Your task to perform on an android device: Clear the shopping cart on costco. Search for "apple airpods" on costco, select the first entry, and add it to the cart. Image 0: 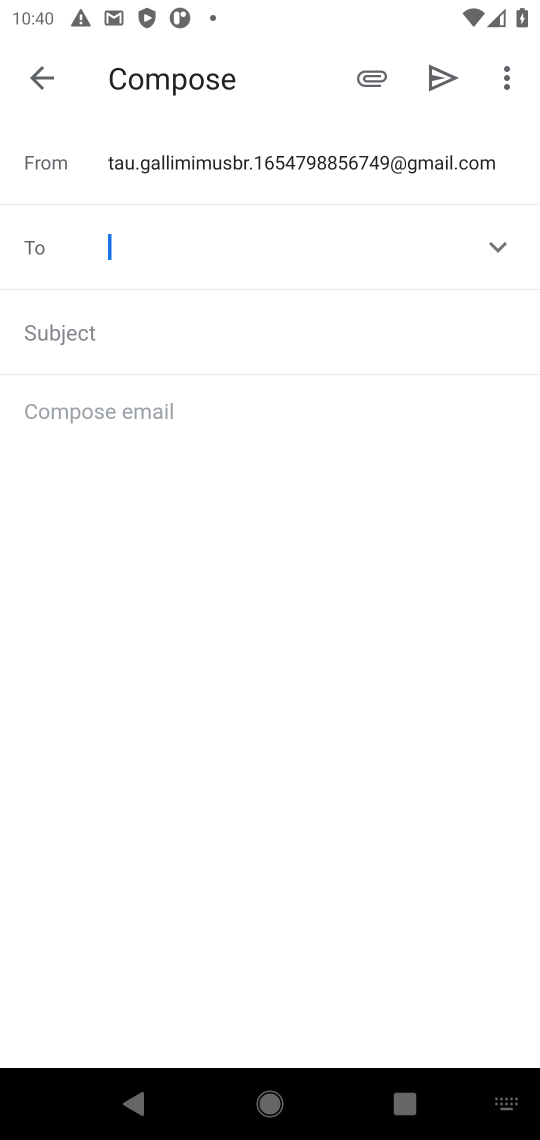
Step 0: press home button
Your task to perform on an android device: Clear the shopping cart on costco. Search for "apple airpods" on costco, select the first entry, and add it to the cart. Image 1: 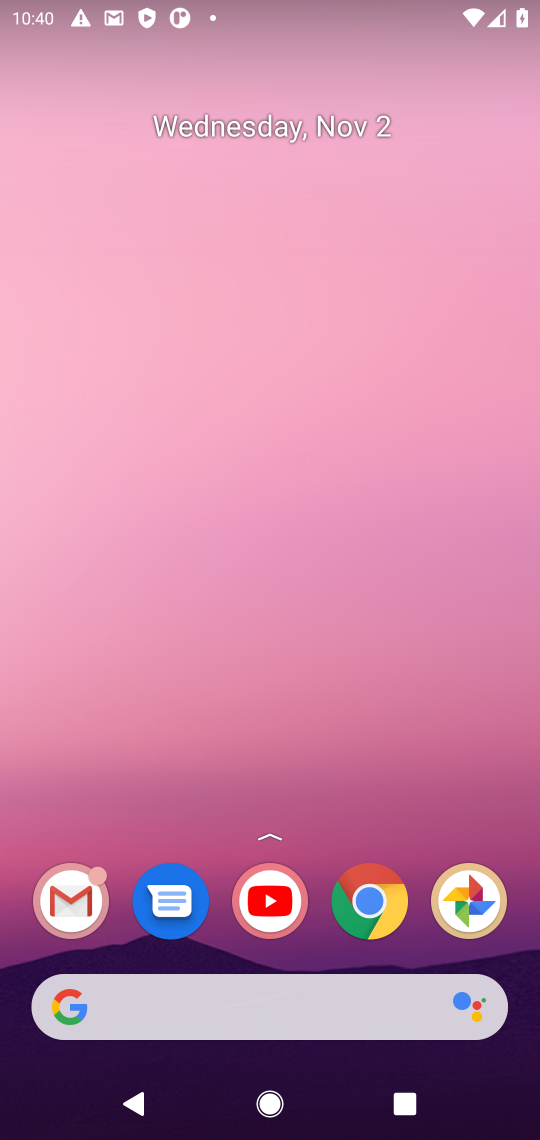
Step 1: click (156, 1004)
Your task to perform on an android device: Clear the shopping cart on costco. Search for "apple airpods" on costco, select the first entry, and add it to the cart. Image 2: 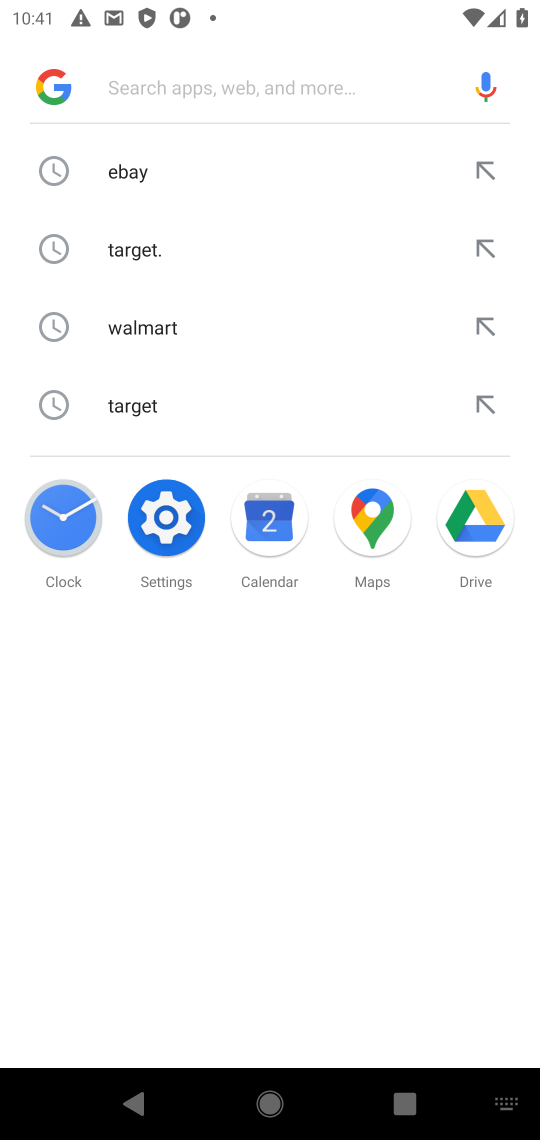
Step 2: type "costco"
Your task to perform on an android device: Clear the shopping cart on costco. Search for "apple airpods" on costco, select the first entry, and add it to the cart. Image 3: 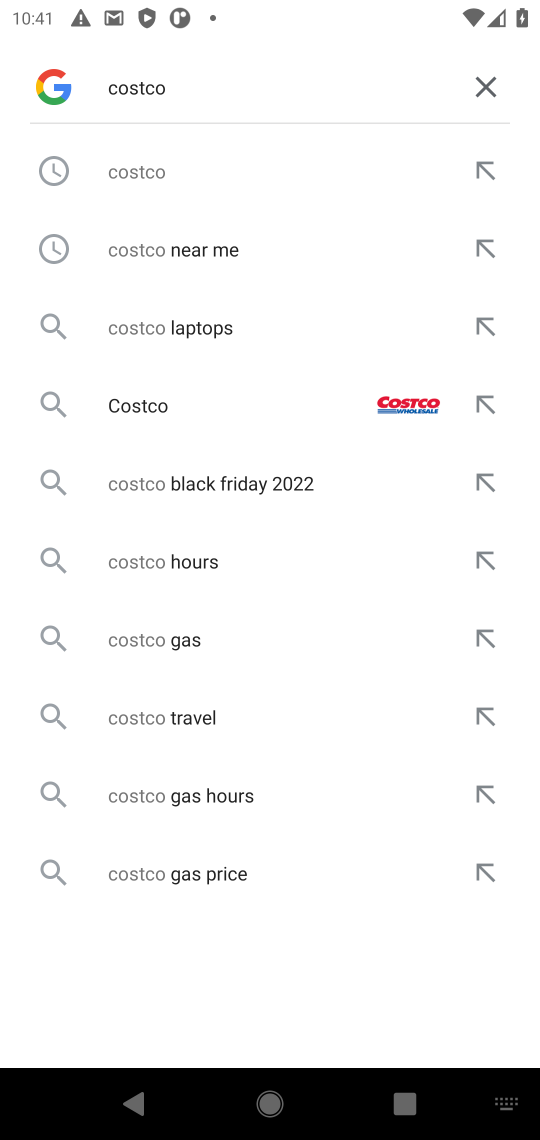
Step 3: click (141, 172)
Your task to perform on an android device: Clear the shopping cart on costco. Search for "apple airpods" on costco, select the first entry, and add it to the cart. Image 4: 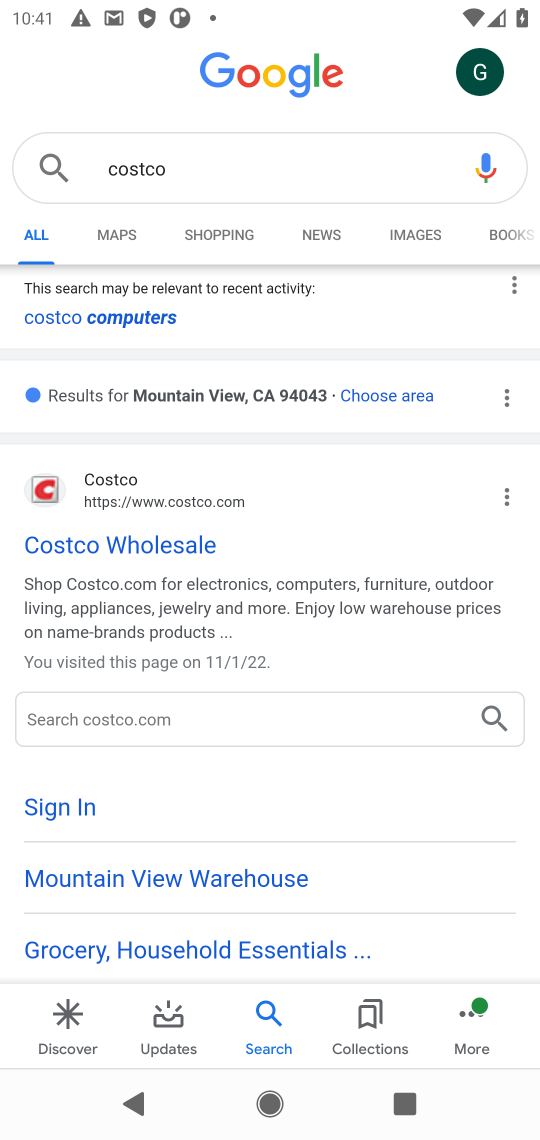
Step 4: click (107, 539)
Your task to perform on an android device: Clear the shopping cart on costco. Search for "apple airpods" on costco, select the first entry, and add it to the cart. Image 5: 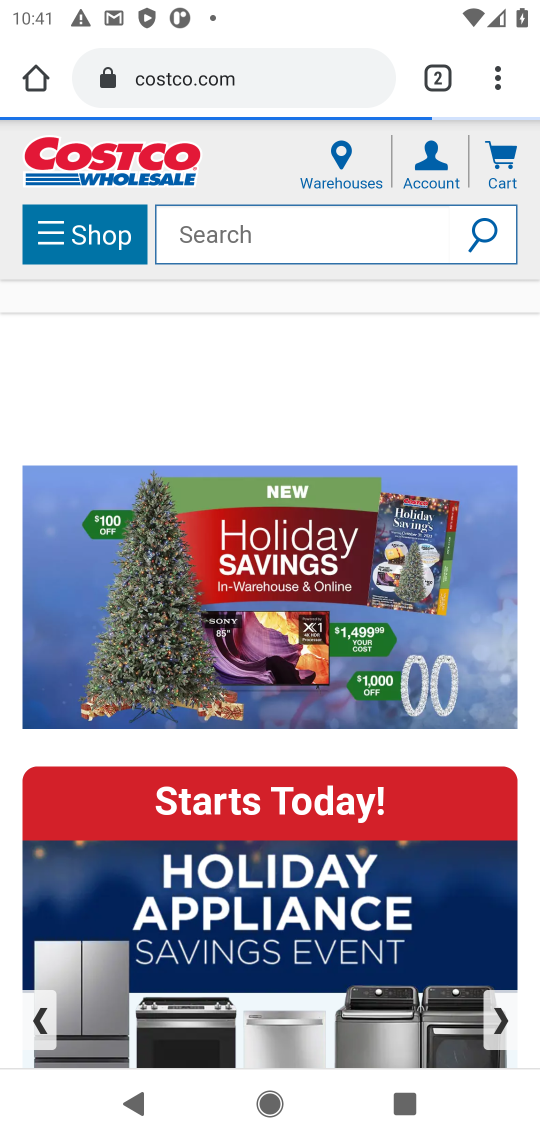
Step 5: click (297, 235)
Your task to perform on an android device: Clear the shopping cart on costco. Search for "apple airpods" on costco, select the first entry, and add it to the cart. Image 6: 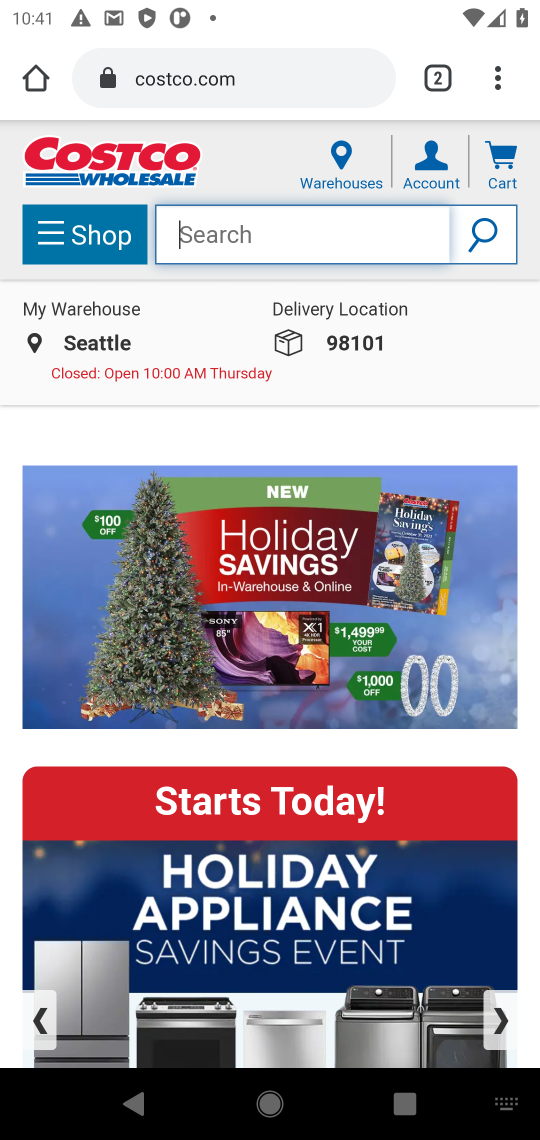
Step 6: type "apple airpods"
Your task to perform on an android device: Clear the shopping cart on costco. Search for "apple airpods" on costco, select the first entry, and add it to the cart. Image 7: 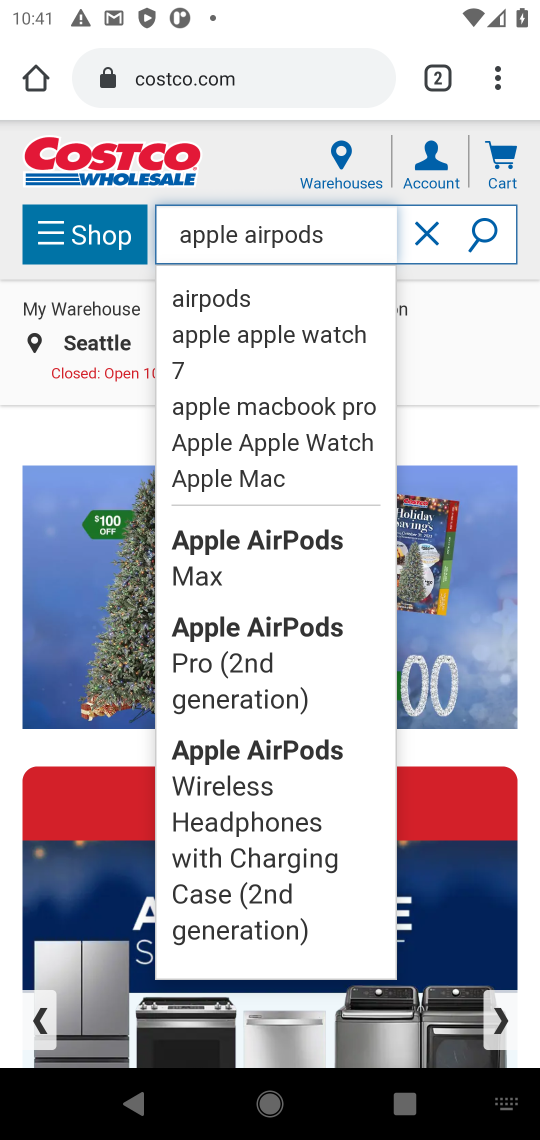
Step 7: click (491, 235)
Your task to perform on an android device: Clear the shopping cart on costco. Search for "apple airpods" on costco, select the first entry, and add it to the cart. Image 8: 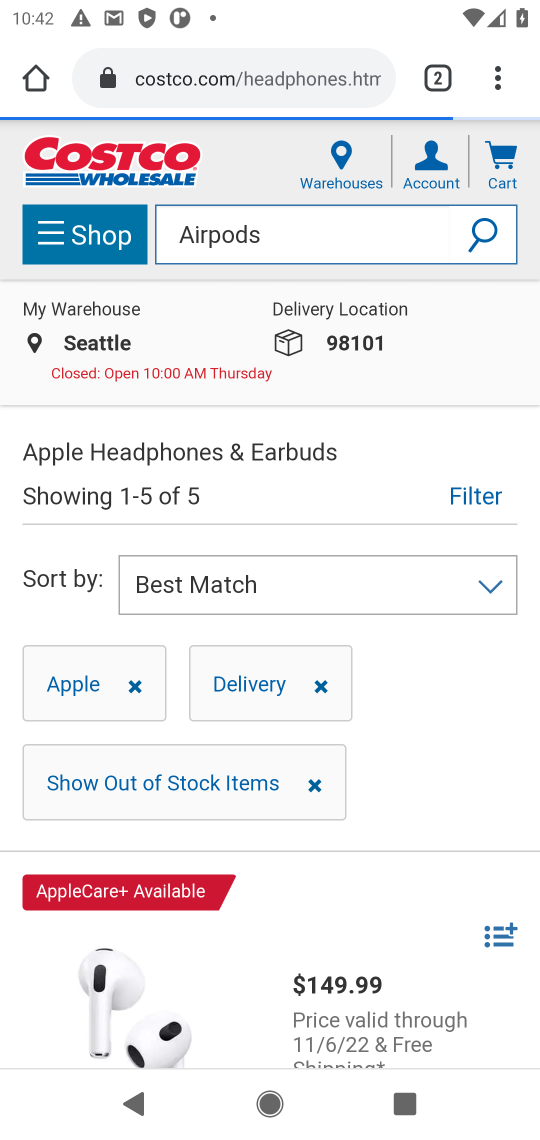
Step 8: drag from (410, 774) to (410, 460)
Your task to perform on an android device: Clear the shopping cart on costco. Search for "apple airpods" on costco, select the first entry, and add it to the cart. Image 9: 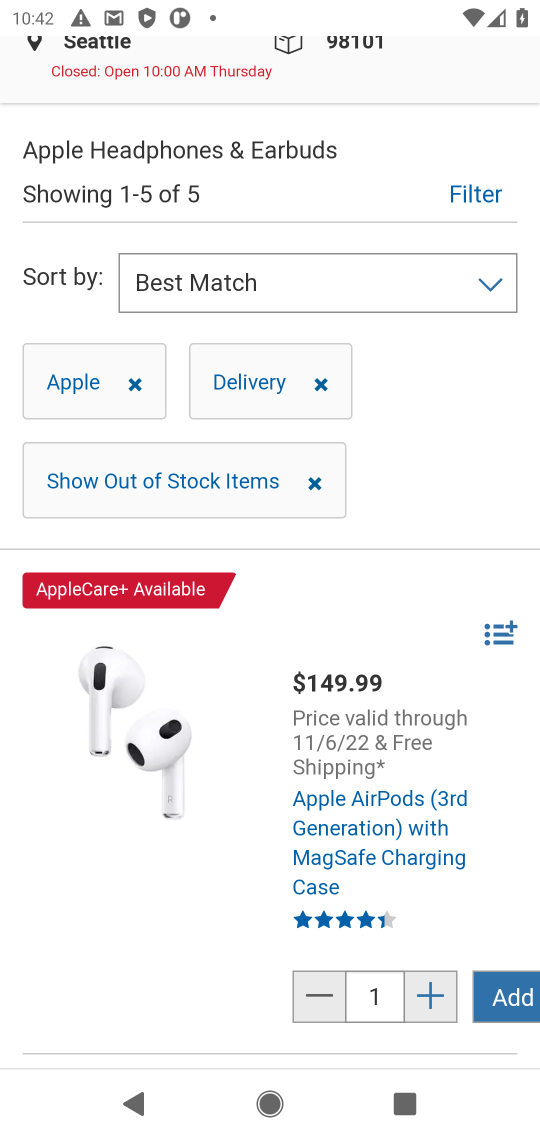
Step 9: drag from (497, 865) to (493, 572)
Your task to perform on an android device: Clear the shopping cart on costco. Search for "apple airpods" on costco, select the first entry, and add it to the cart. Image 10: 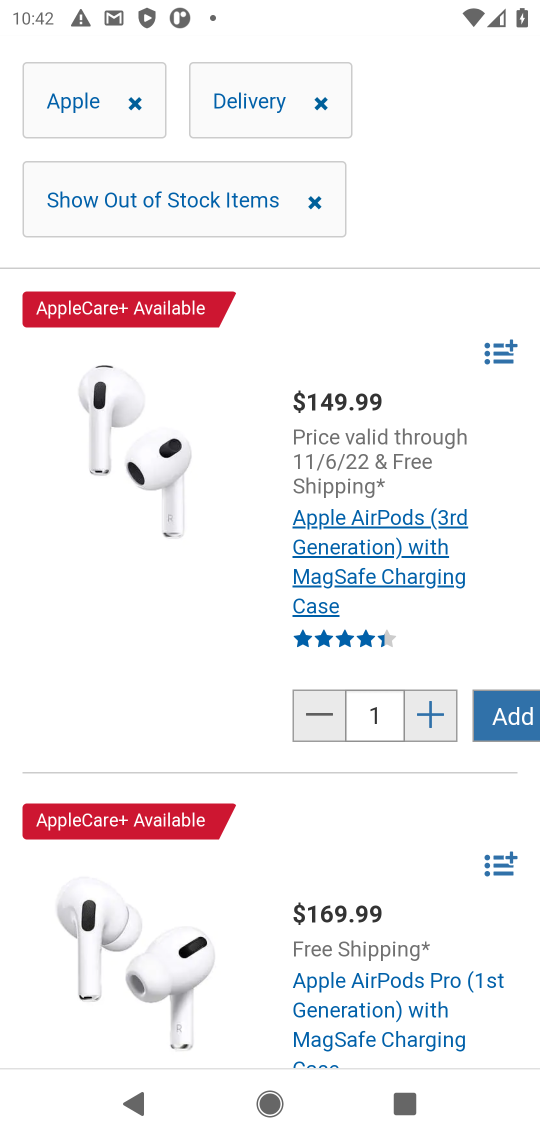
Step 10: click (497, 709)
Your task to perform on an android device: Clear the shopping cart on costco. Search for "apple airpods" on costco, select the first entry, and add it to the cart. Image 11: 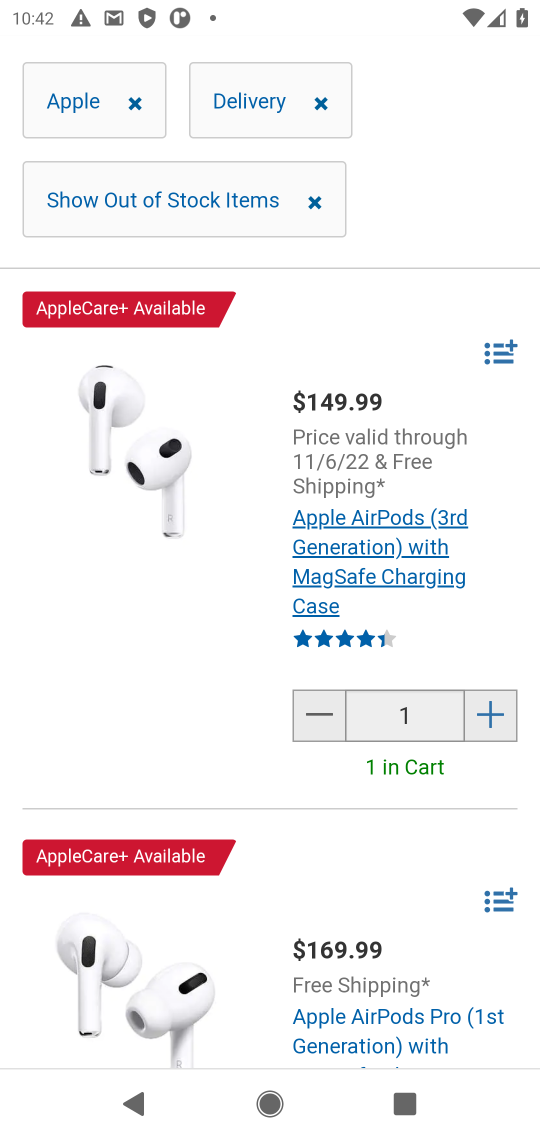
Step 11: drag from (424, 210) to (422, 684)
Your task to perform on an android device: Clear the shopping cart on costco. Search for "apple airpods" on costco, select the first entry, and add it to the cart. Image 12: 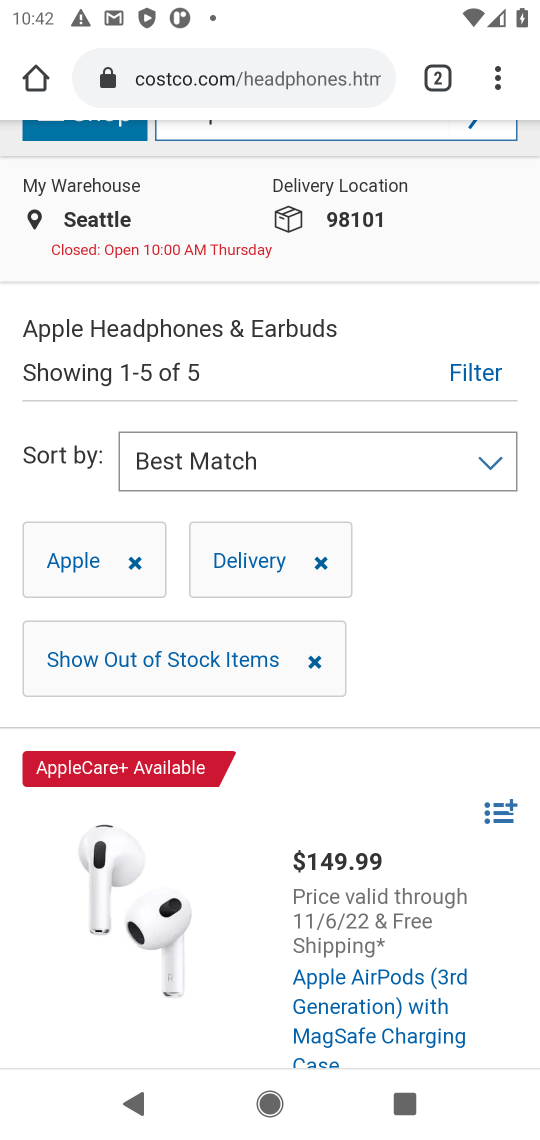
Step 12: drag from (434, 301) to (427, 862)
Your task to perform on an android device: Clear the shopping cart on costco. Search for "apple airpods" on costco, select the first entry, and add it to the cart. Image 13: 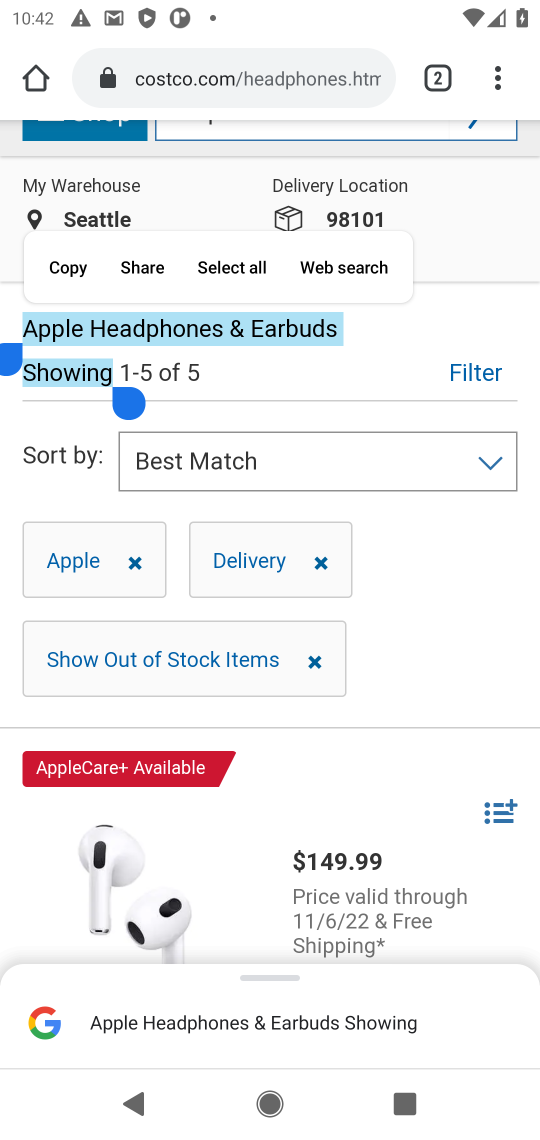
Step 13: click (493, 276)
Your task to perform on an android device: Clear the shopping cart on costco. Search for "apple airpods" on costco, select the first entry, and add it to the cart. Image 14: 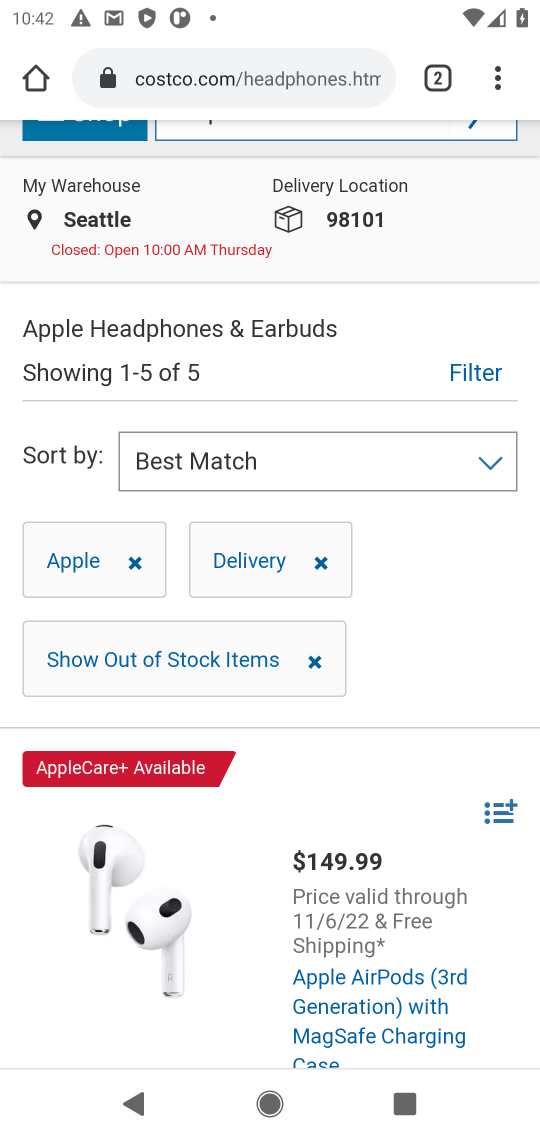
Step 14: drag from (493, 229) to (498, 684)
Your task to perform on an android device: Clear the shopping cart on costco. Search for "apple airpods" on costco, select the first entry, and add it to the cart. Image 15: 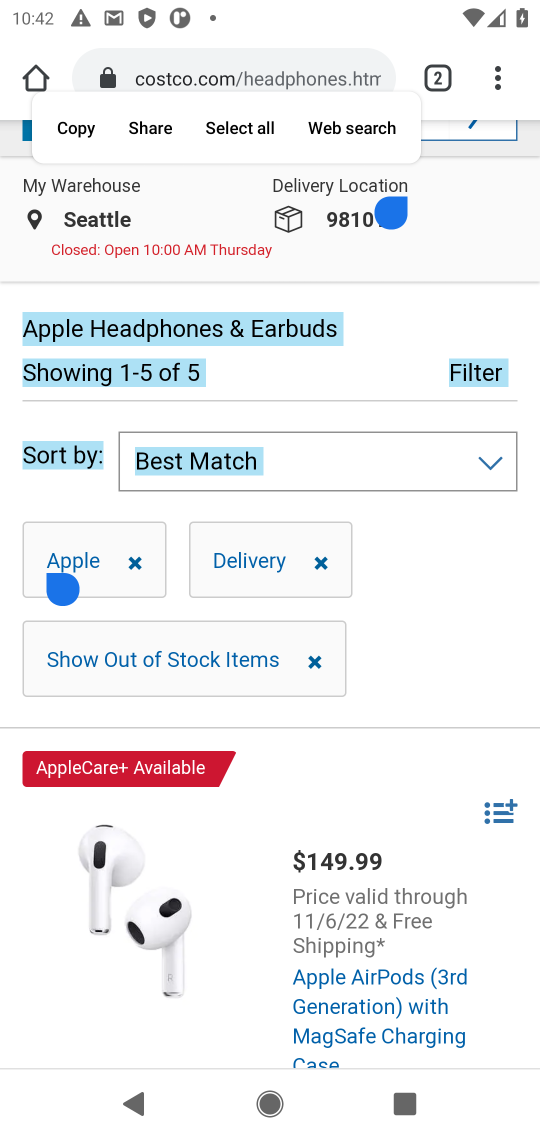
Step 15: drag from (537, 286) to (508, 851)
Your task to perform on an android device: Clear the shopping cart on costco. Search for "apple airpods" on costco, select the first entry, and add it to the cart. Image 16: 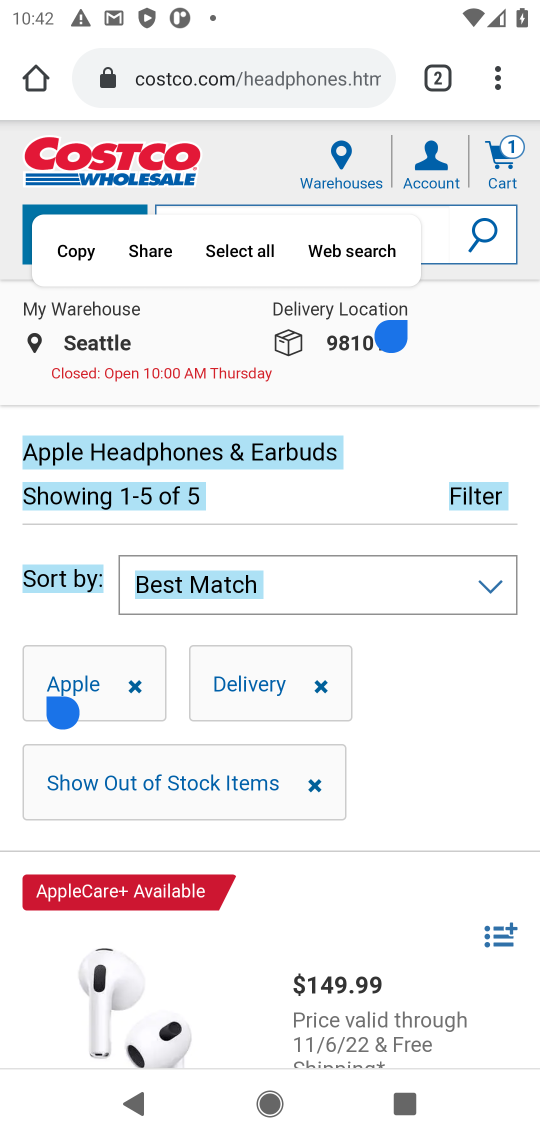
Step 16: click (505, 153)
Your task to perform on an android device: Clear the shopping cart on costco. Search for "apple airpods" on costco, select the first entry, and add it to the cart. Image 17: 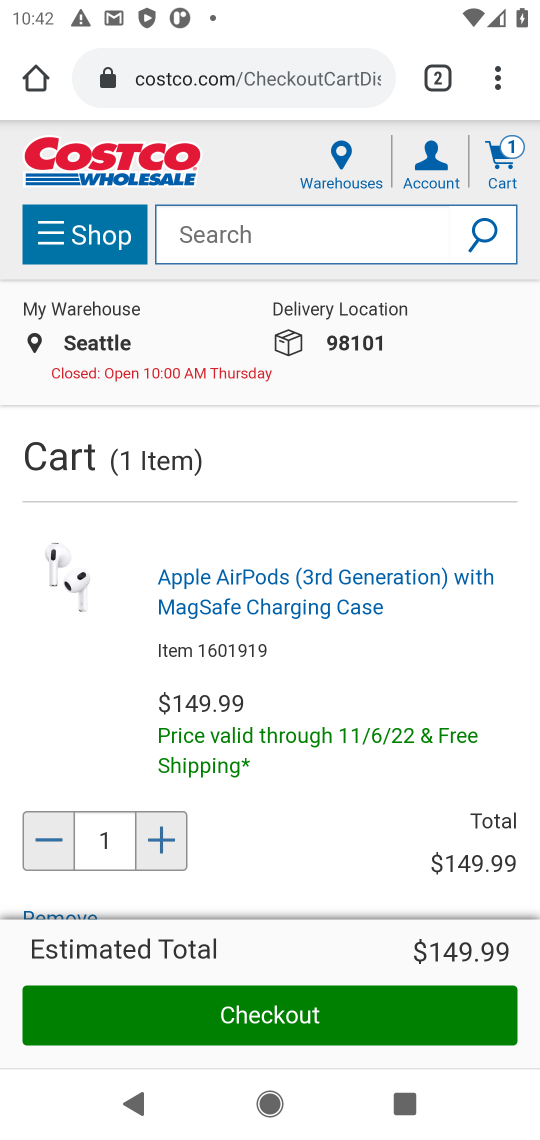
Step 17: task complete